Your task to perform on an android device: Open ESPN.com Image 0: 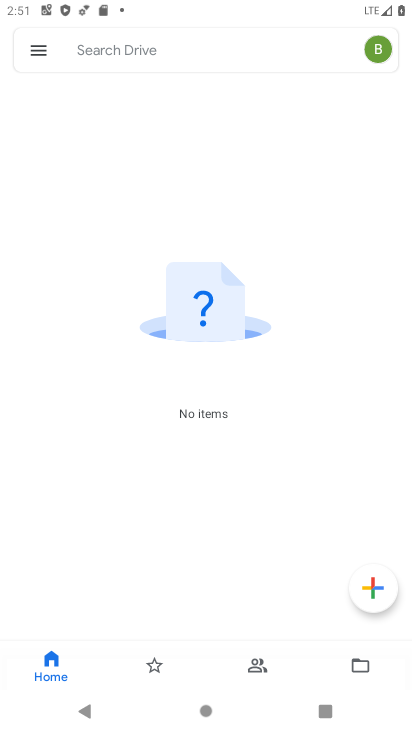
Step 0: press home button
Your task to perform on an android device: Open ESPN.com Image 1: 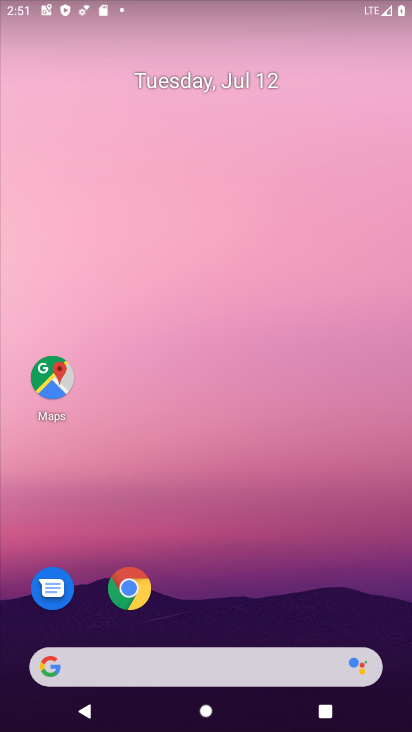
Step 1: click (192, 667)
Your task to perform on an android device: Open ESPN.com Image 2: 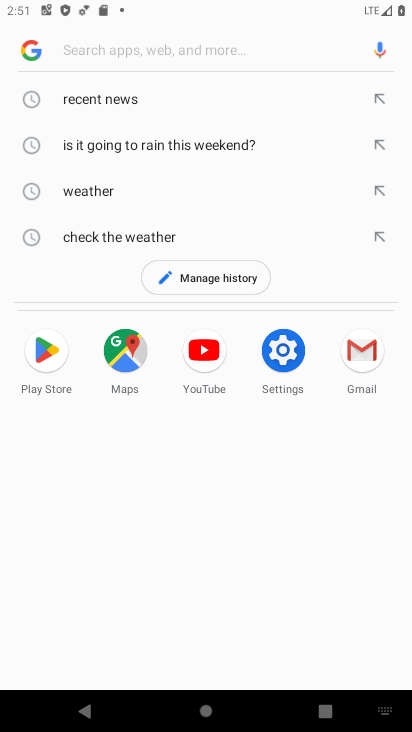
Step 2: type "espn.com"
Your task to perform on an android device: Open ESPN.com Image 3: 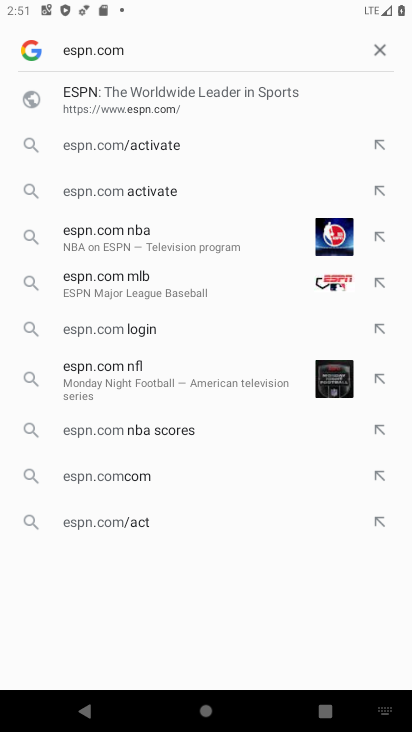
Step 3: click (263, 101)
Your task to perform on an android device: Open ESPN.com Image 4: 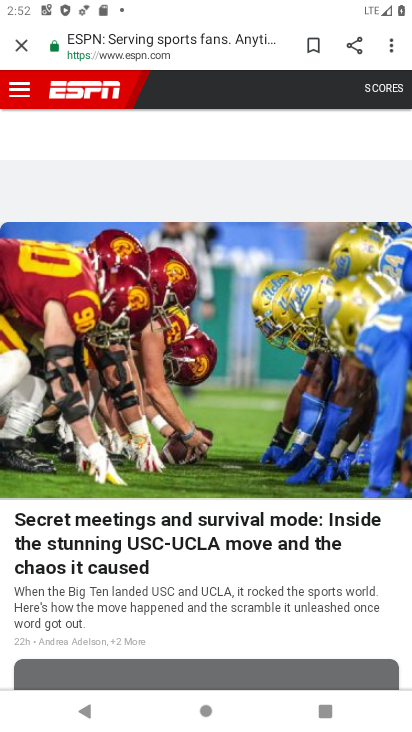
Step 4: task complete